Your task to perform on an android device: Open accessibility settings Image 0: 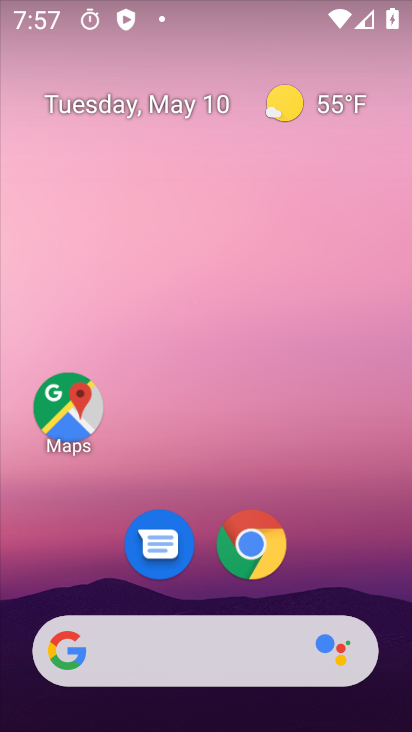
Step 0: drag from (183, 558) to (215, 311)
Your task to perform on an android device: Open accessibility settings Image 1: 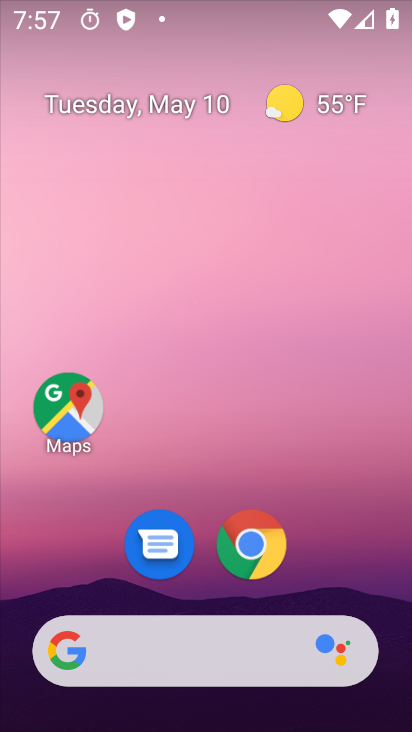
Step 1: drag from (207, 612) to (211, 202)
Your task to perform on an android device: Open accessibility settings Image 2: 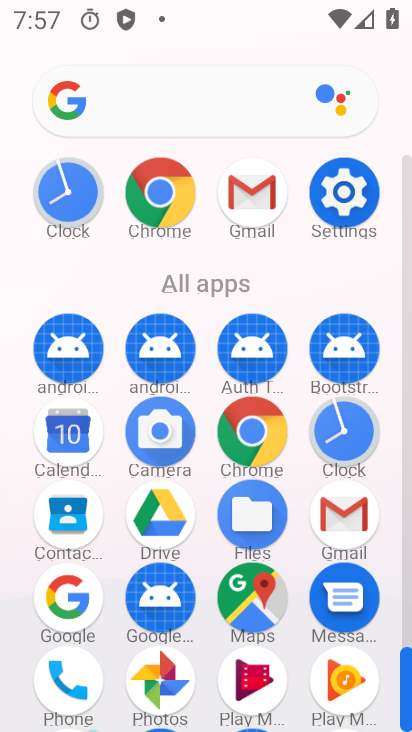
Step 2: click (335, 206)
Your task to perform on an android device: Open accessibility settings Image 3: 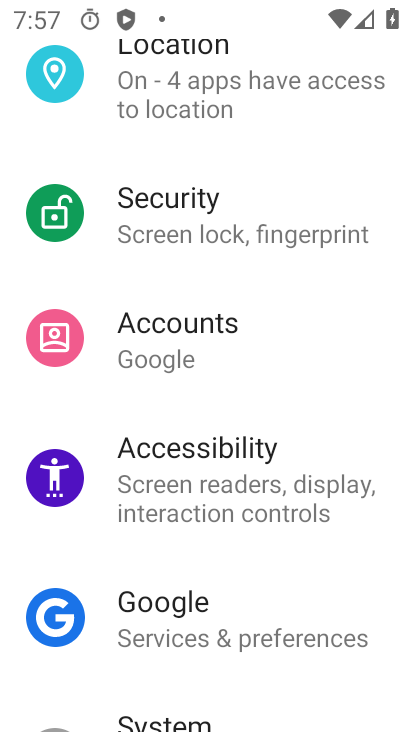
Step 3: click (185, 468)
Your task to perform on an android device: Open accessibility settings Image 4: 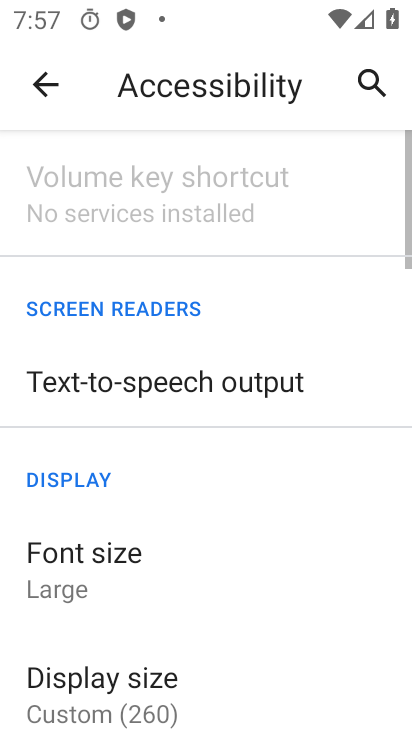
Step 4: task complete